Your task to perform on an android device: Show me productivity apps on the Play Store Image 0: 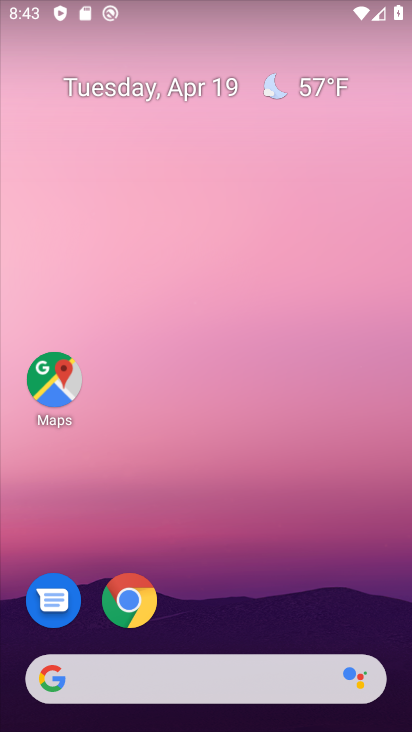
Step 0: drag from (383, 619) to (370, 121)
Your task to perform on an android device: Show me productivity apps on the Play Store Image 1: 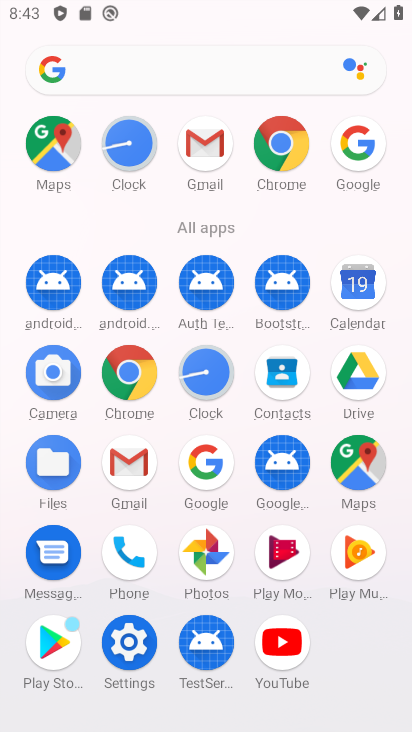
Step 1: click (58, 643)
Your task to perform on an android device: Show me productivity apps on the Play Store Image 2: 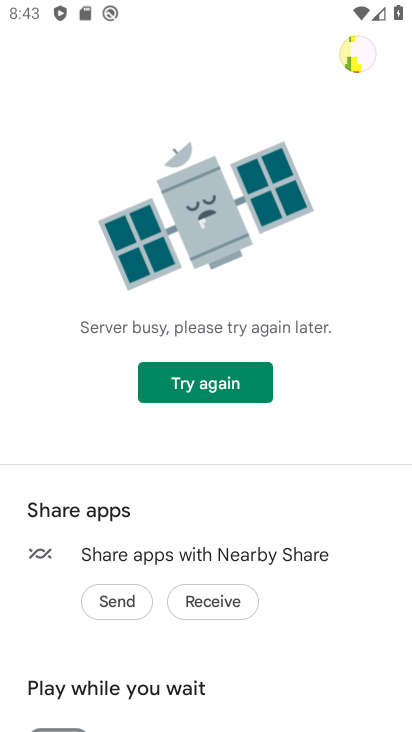
Step 2: click (251, 382)
Your task to perform on an android device: Show me productivity apps on the Play Store Image 3: 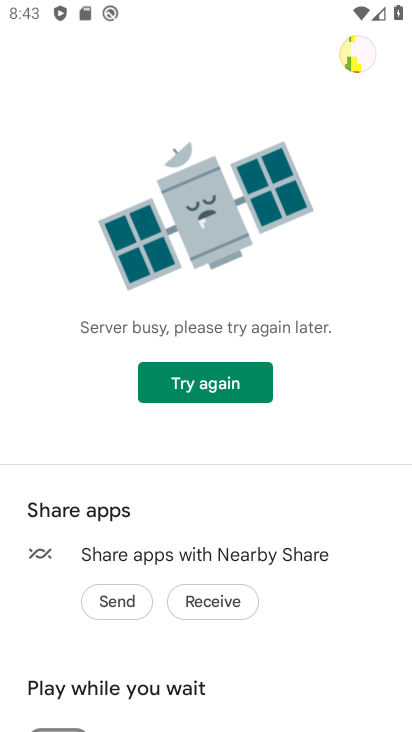
Step 3: task complete